Your task to perform on an android device: change your default location settings in chrome Image 0: 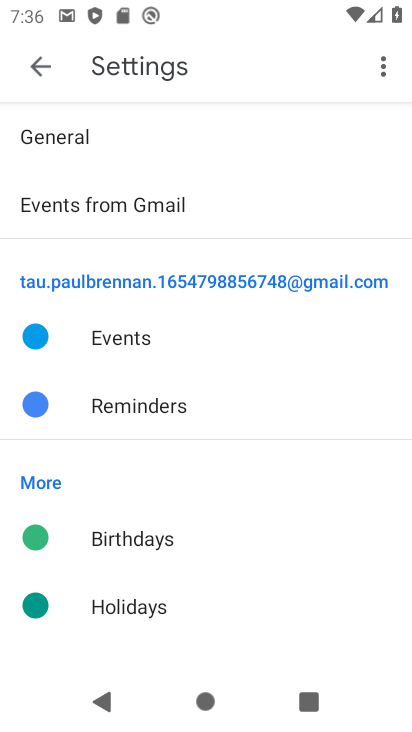
Step 0: press home button
Your task to perform on an android device: change your default location settings in chrome Image 1: 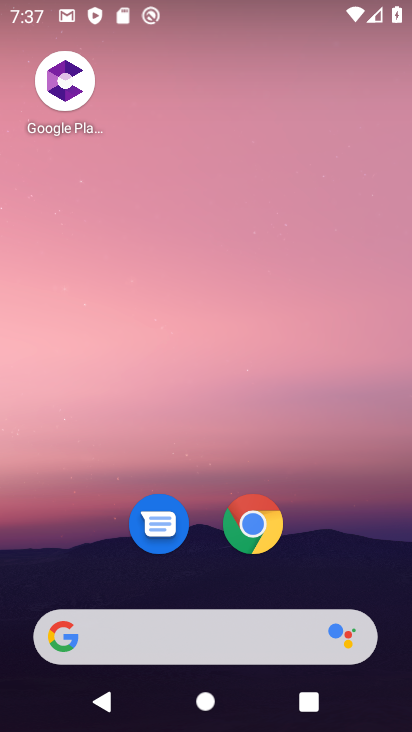
Step 1: click (261, 532)
Your task to perform on an android device: change your default location settings in chrome Image 2: 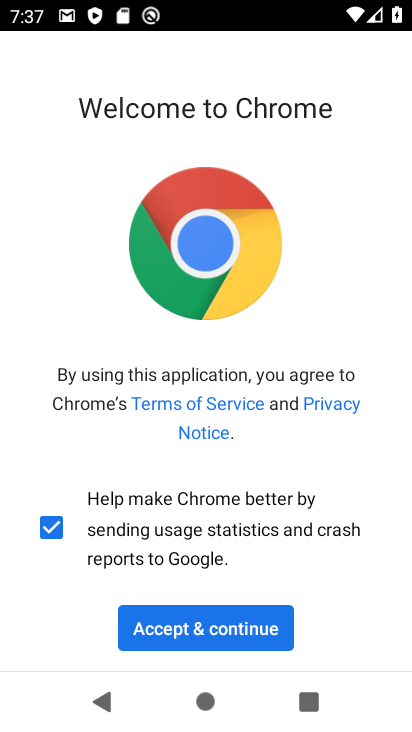
Step 2: click (251, 634)
Your task to perform on an android device: change your default location settings in chrome Image 3: 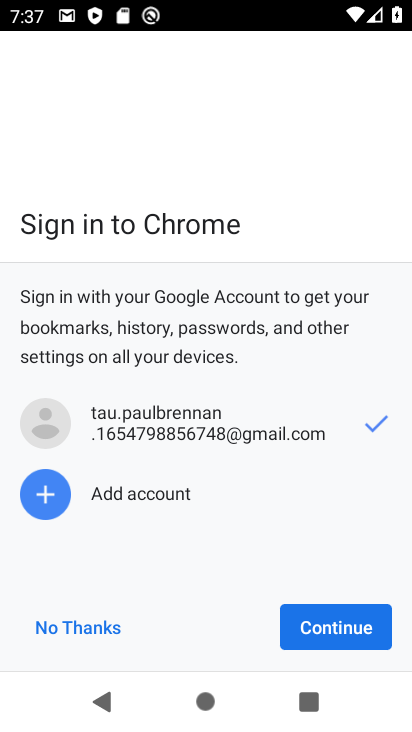
Step 3: click (306, 626)
Your task to perform on an android device: change your default location settings in chrome Image 4: 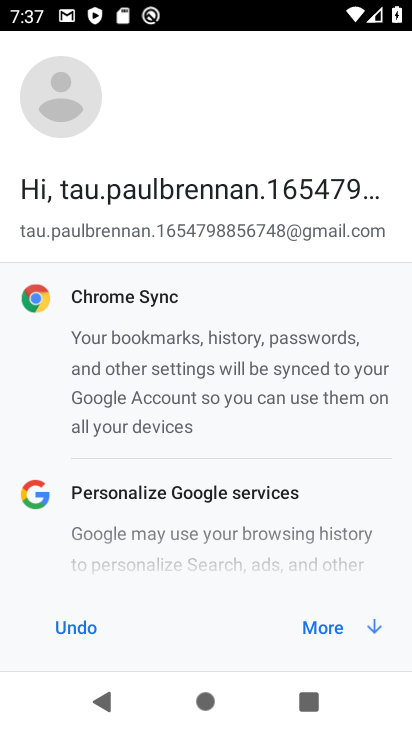
Step 4: click (306, 626)
Your task to perform on an android device: change your default location settings in chrome Image 5: 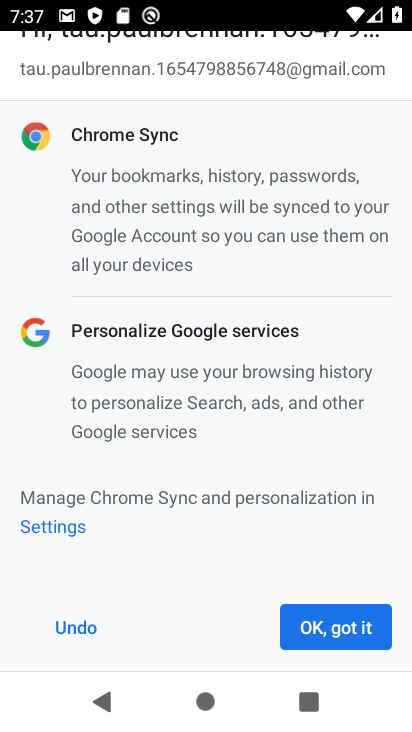
Step 5: click (306, 626)
Your task to perform on an android device: change your default location settings in chrome Image 6: 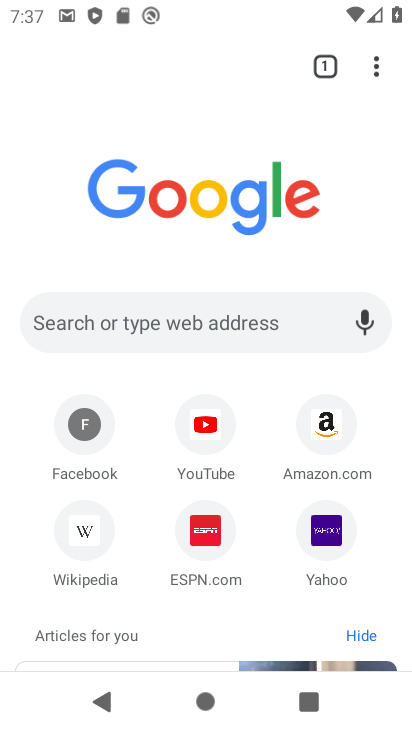
Step 6: click (372, 66)
Your task to perform on an android device: change your default location settings in chrome Image 7: 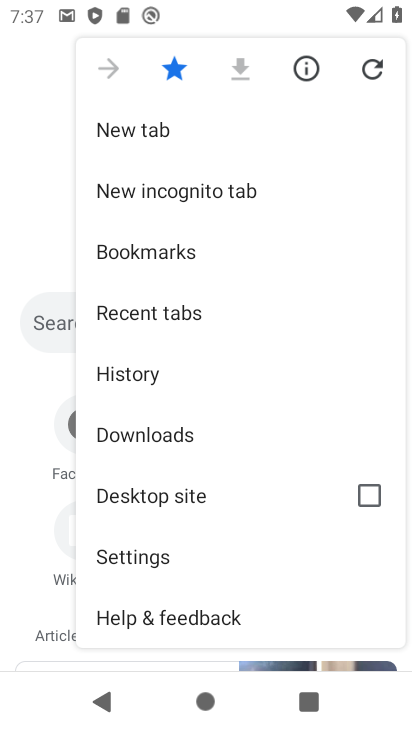
Step 7: click (156, 561)
Your task to perform on an android device: change your default location settings in chrome Image 8: 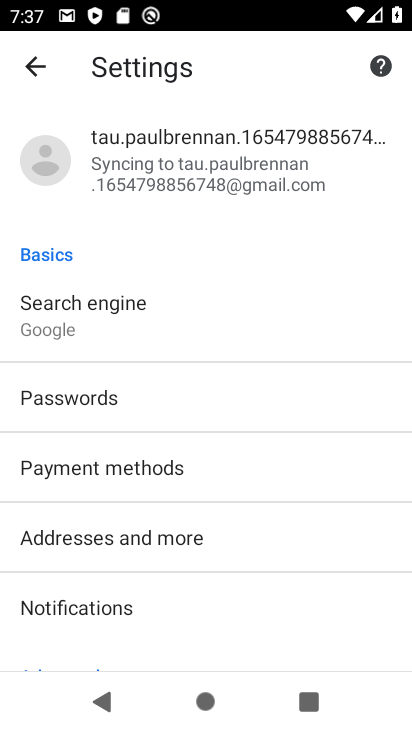
Step 8: drag from (212, 596) to (217, 233)
Your task to perform on an android device: change your default location settings in chrome Image 9: 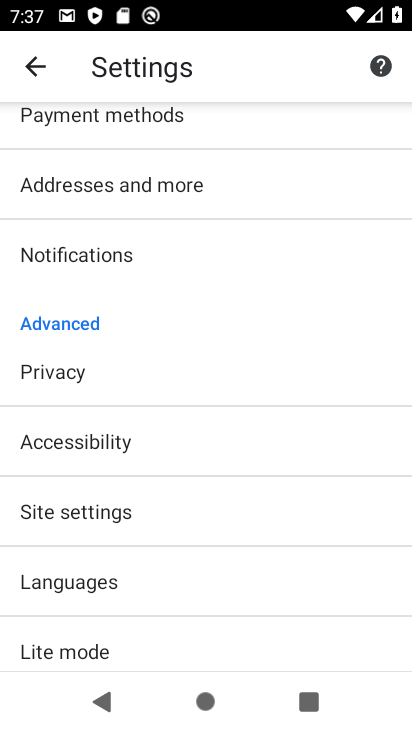
Step 9: click (181, 510)
Your task to perform on an android device: change your default location settings in chrome Image 10: 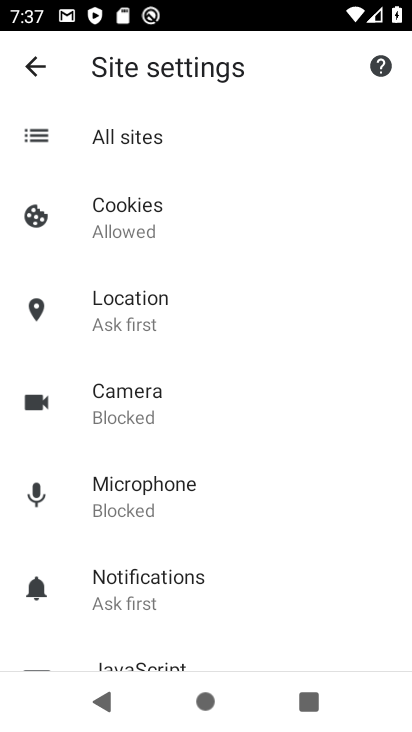
Step 10: click (133, 306)
Your task to perform on an android device: change your default location settings in chrome Image 11: 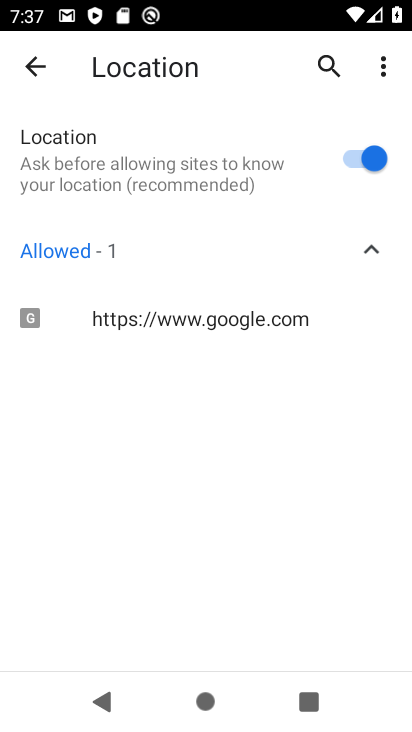
Step 11: click (355, 154)
Your task to perform on an android device: change your default location settings in chrome Image 12: 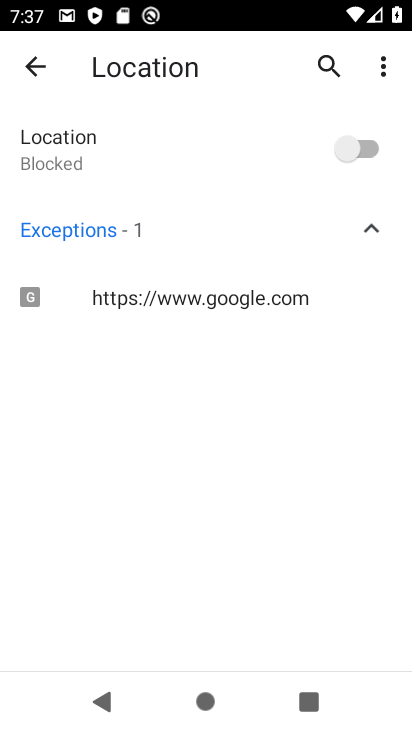
Step 12: task complete